Your task to perform on an android device: What's on my calendar today? Image 0: 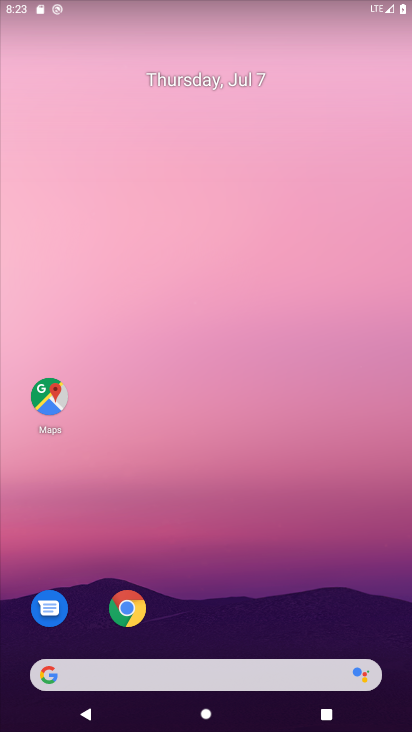
Step 0: drag from (345, 620) to (342, 74)
Your task to perform on an android device: What's on my calendar today? Image 1: 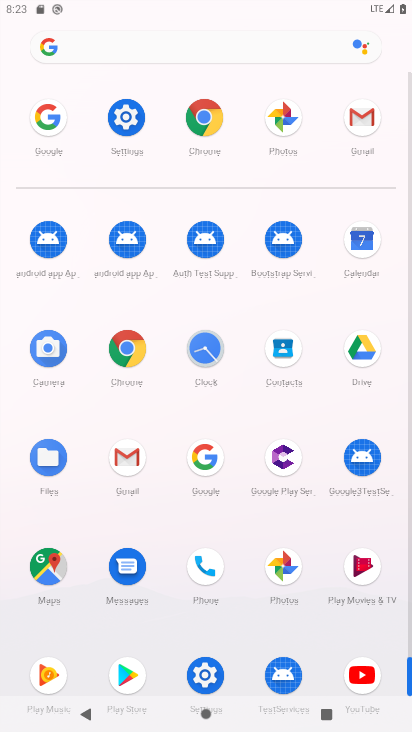
Step 1: click (358, 238)
Your task to perform on an android device: What's on my calendar today? Image 2: 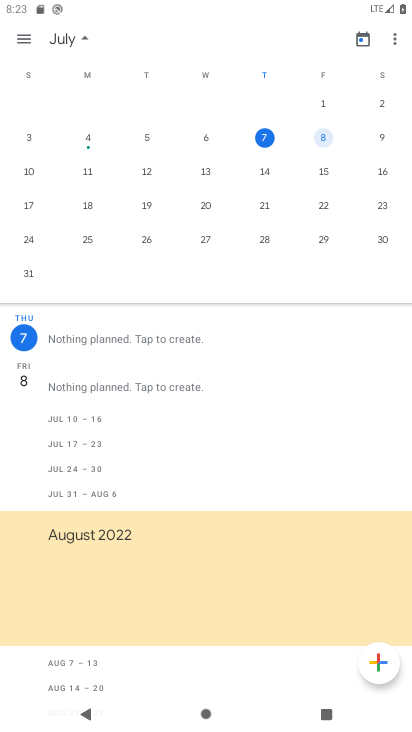
Step 2: click (320, 138)
Your task to perform on an android device: What's on my calendar today? Image 3: 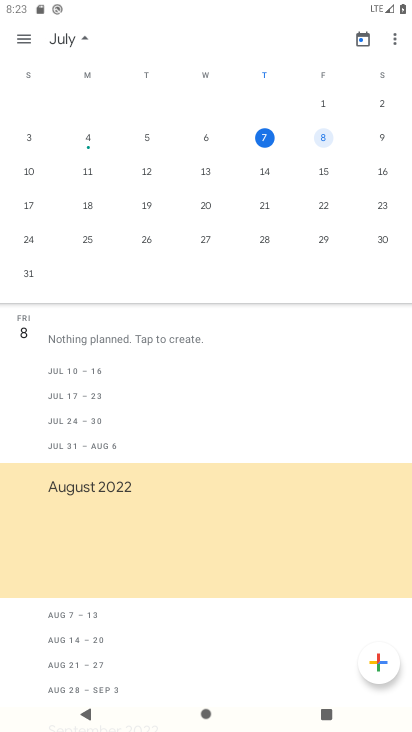
Step 3: task complete